Your task to perform on an android device: What's the weather going to be this weekend? Image 0: 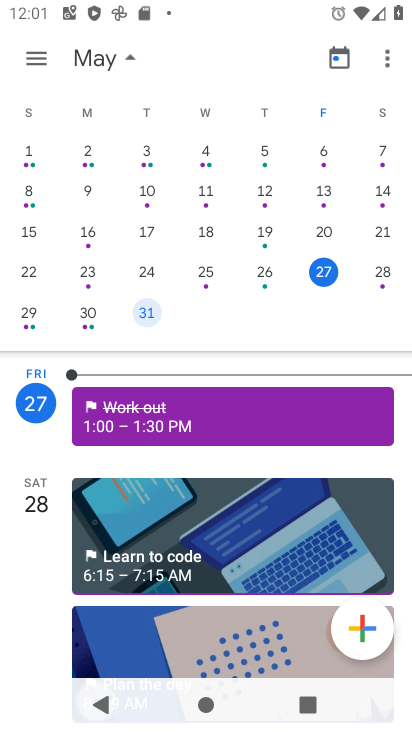
Step 0: press home button
Your task to perform on an android device: What's the weather going to be this weekend? Image 1: 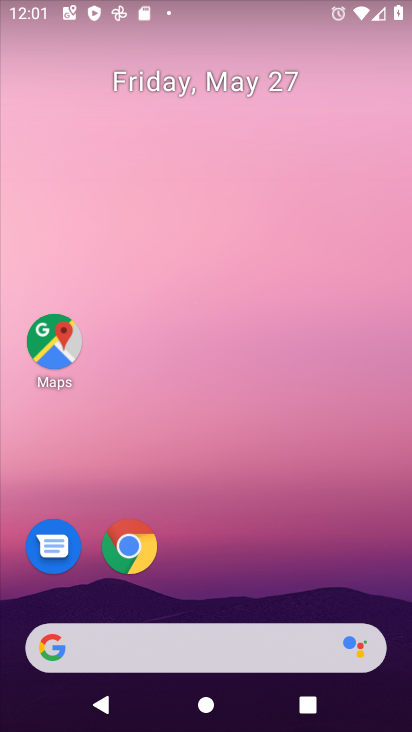
Step 1: drag from (215, 562) to (210, 112)
Your task to perform on an android device: What's the weather going to be this weekend? Image 2: 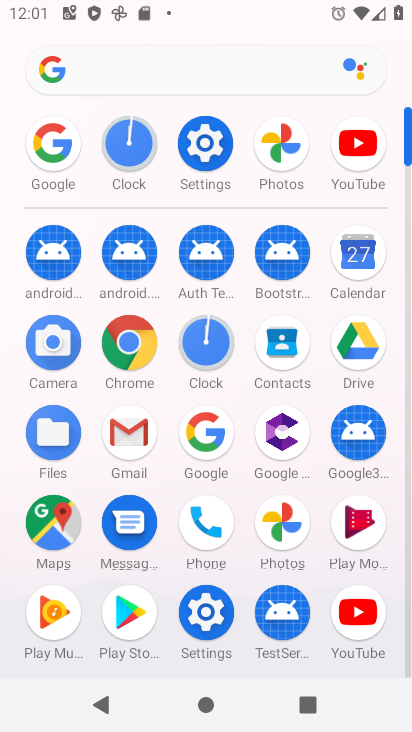
Step 2: click (51, 143)
Your task to perform on an android device: What's the weather going to be this weekend? Image 3: 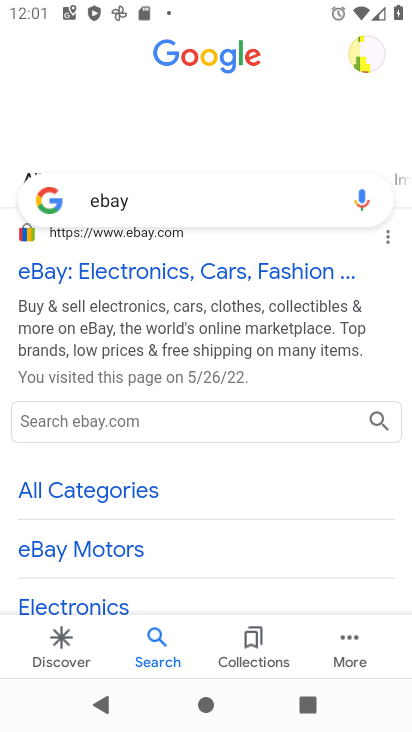
Step 3: click (224, 190)
Your task to perform on an android device: What's the weather going to be this weekend? Image 4: 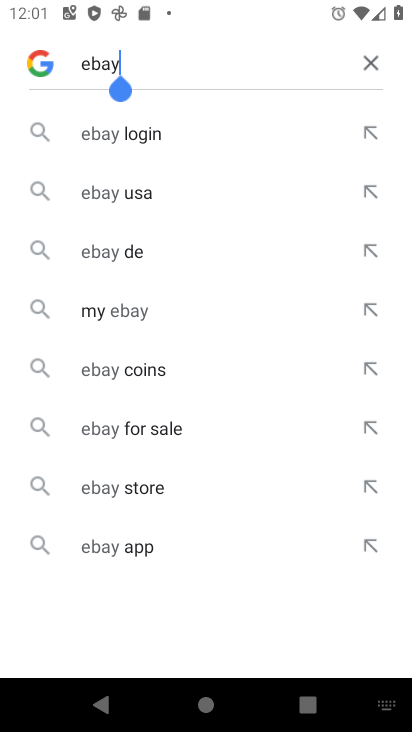
Step 4: click (367, 65)
Your task to perform on an android device: What's the weather going to be this weekend? Image 5: 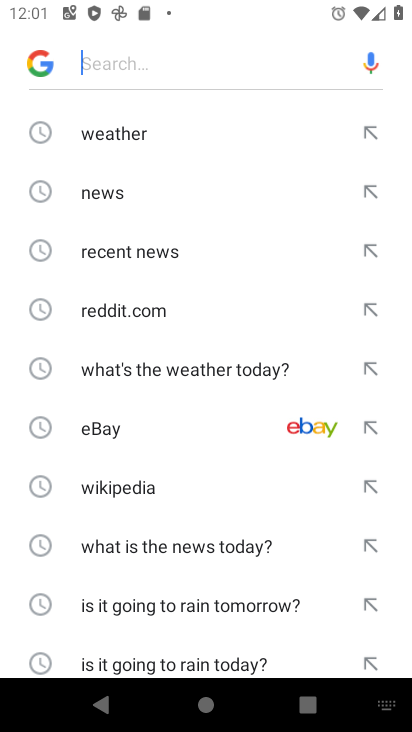
Step 5: drag from (220, 533) to (225, 242)
Your task to perform on an android device: What's the weather going to be this weekend? Image 6: 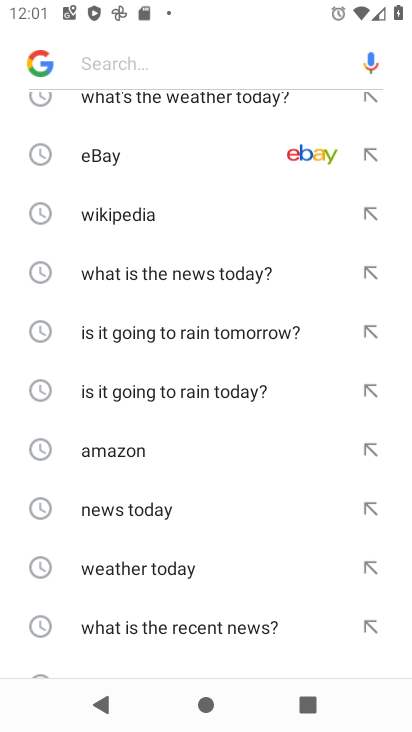
Step 6: drag from (200, 593) to (221, 204)
Your task to perform on an android device: What's the weather going to be this weekend? Image 7: 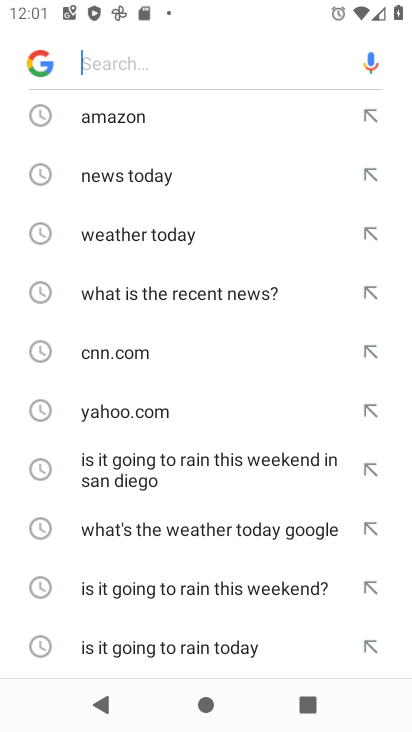
Step 7: drag from (209, 614) to (215, 305)
Your task to perform on an android device: What's the weather going to be this weekend? Image 8: 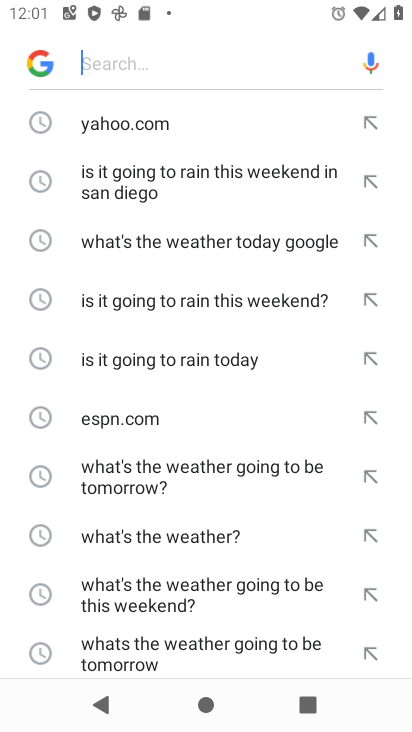
Step 8: click (145, 604)
Your task to perform on an android device: What's the weather going to be this weekend? Image 9: 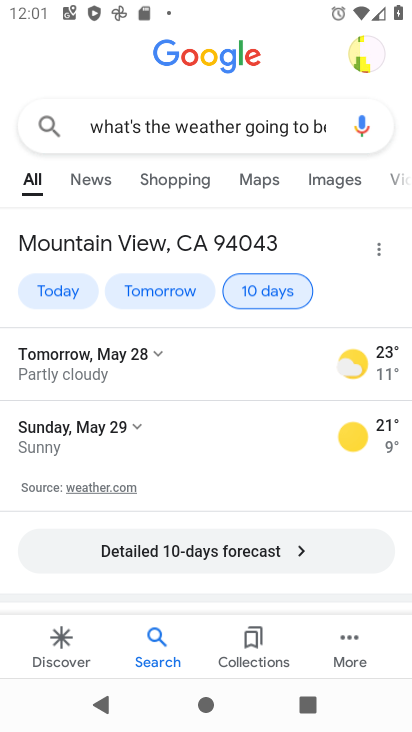
Step 9: task complete